Your task to perform on an android device: toggle notifications settings in the gmail app Image 0: 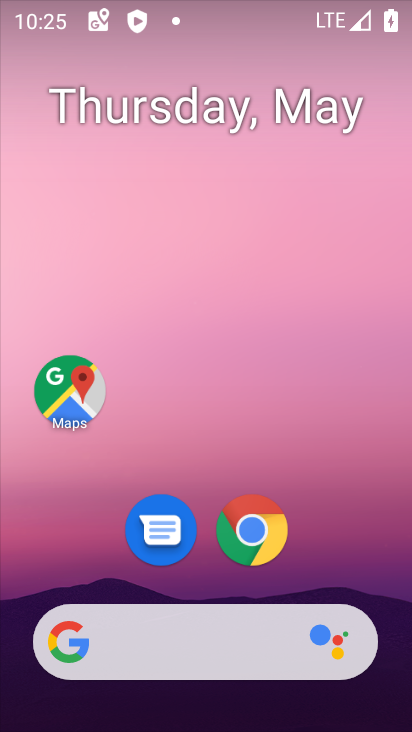
Step 0: drag from (246, 703) to (283, 20)
Your task to perform on an android device: toggle notifications settings in the gmail app Image 1: 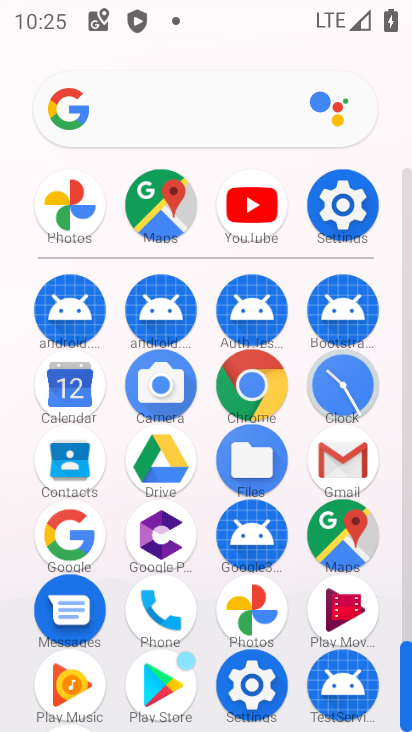
Step 1: click (346, 463)
Your task to perform on an android device: toggle notifications settings in the gmail app Image 2: 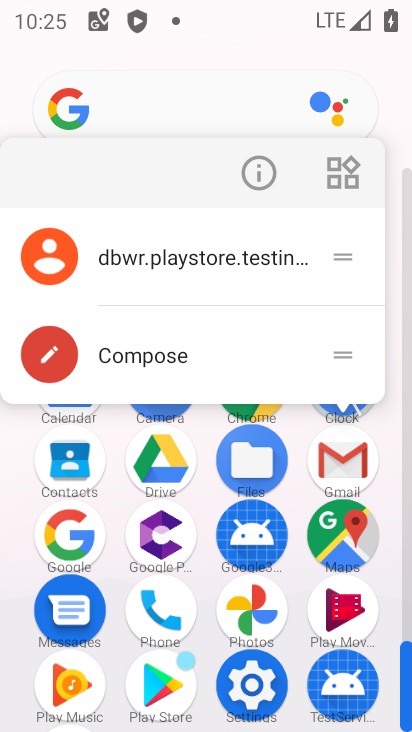
Step 2: click (261, 167)
Your task to perform on an android device: toggle notifications settings in the gmail app Image 3: 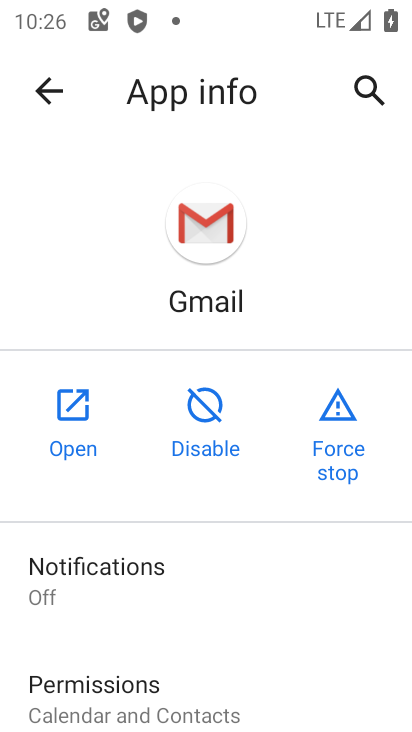
Step 3: click (111, 580)
Your task to perform on an android device: toggle notifications settings in the gmail app Image 4: 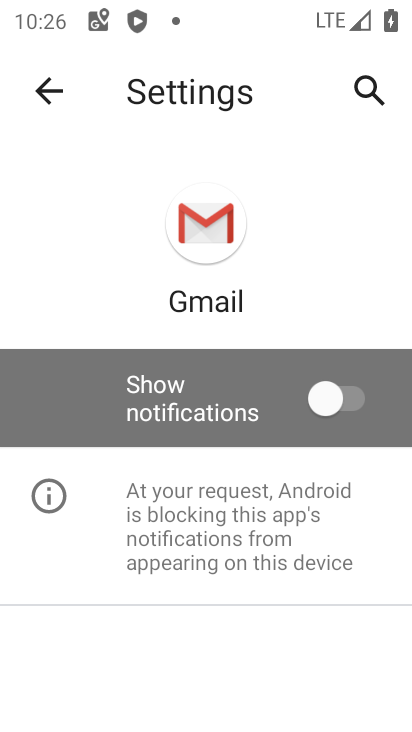
Step 4: click (333, 397)
Your task to perform on an android device: toggle notifications settings in the gmail app Image 5: 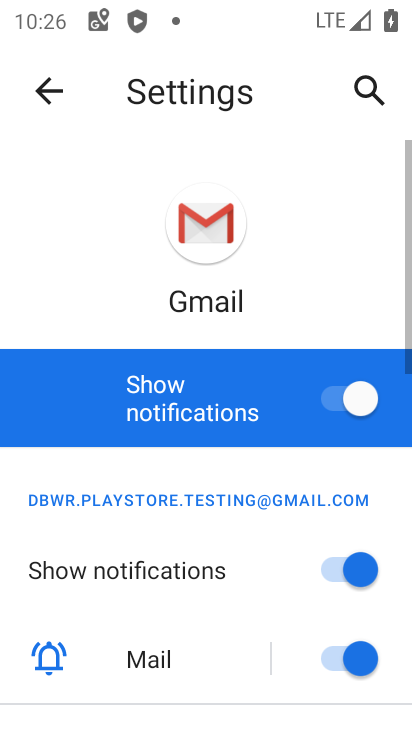
Step 5: task complete